Your task to perform on an android device: turn pop-ups off in chrome Image 0: 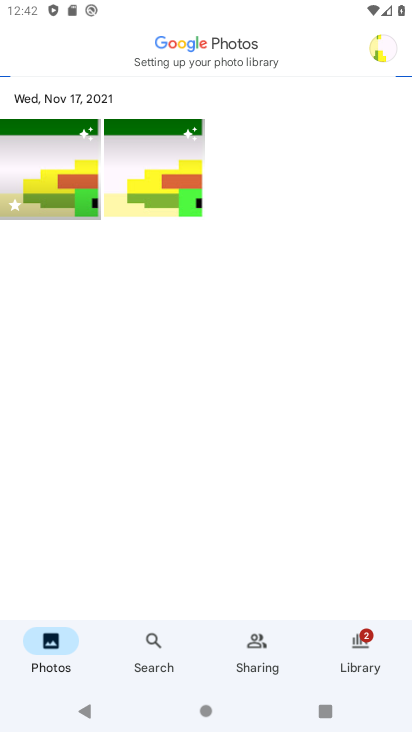
Step 0: press home button
Your task to perform on an android device: turn pop-ups off in chrome Image 1: 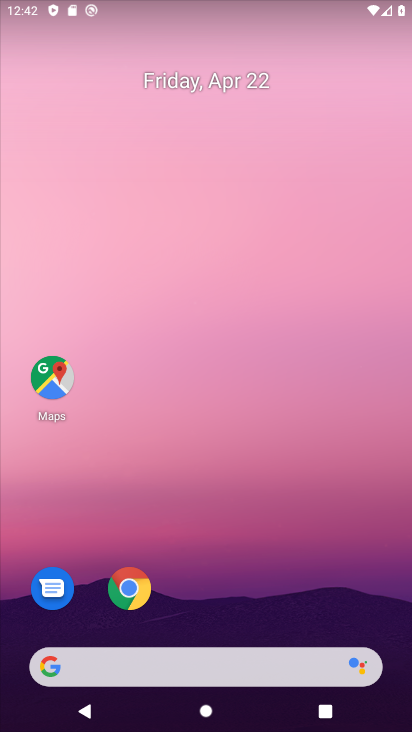
Step 1: drag from (253, 639) to (251, 155)
Your task to perform on an android device: turn pop-ups off in chrome Image 2: 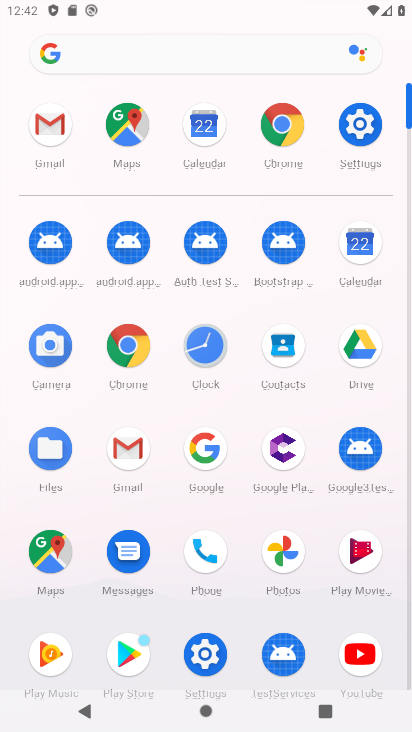
Step 2: click (287, 137)
Your task to perform on an android device: turn pop-ups off in chrome Image 3: 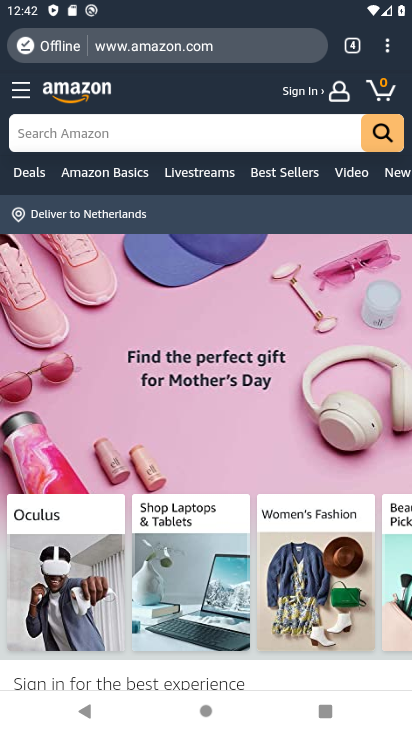
Step 3: click (284, 133)
Your task to perform on an android device: turn pop-ups off in chrome Image 4: 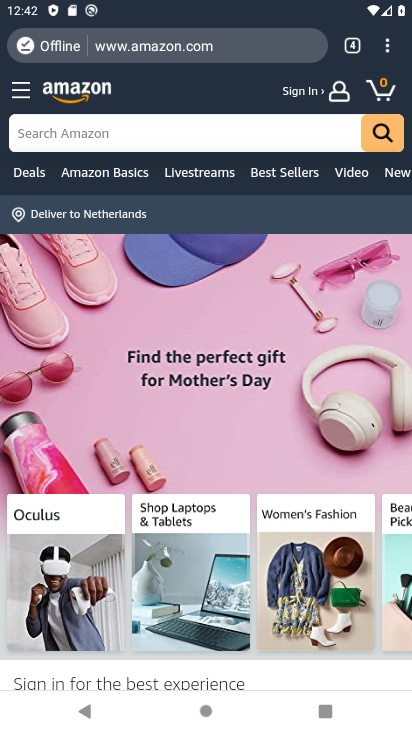
Step 4: click (384, 59)
Your task to perform on an android device: turn pop-ups off in chrome Image 5: 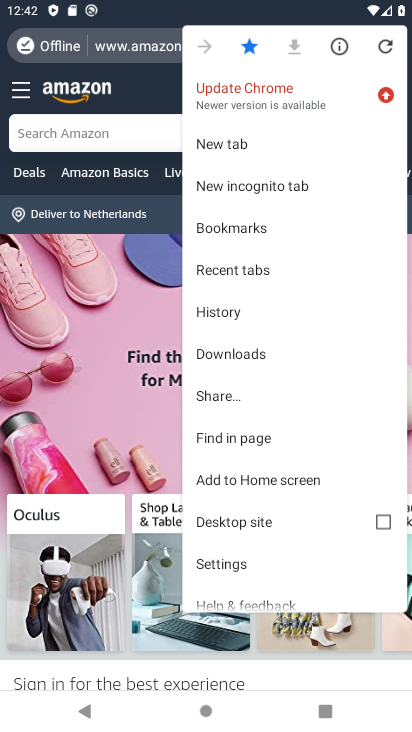
Step 5: click (233, 557)
Your task to perform on an android device: turn pop-ups off in chrome Image 6: 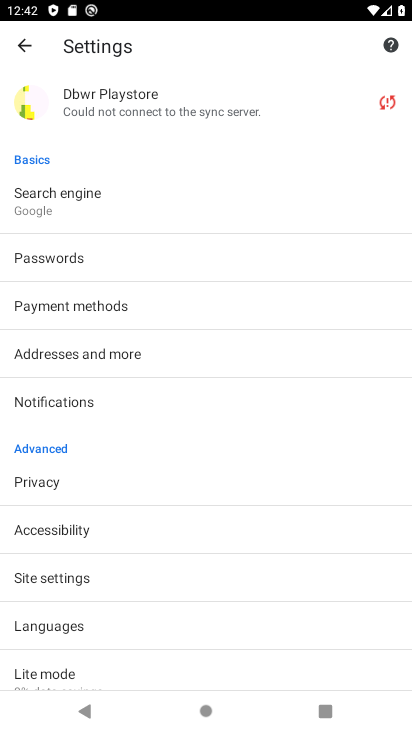
Step 6: click (86, 575)
Your task to perform on an android device: turn pop-ups off in chrome Image 7: 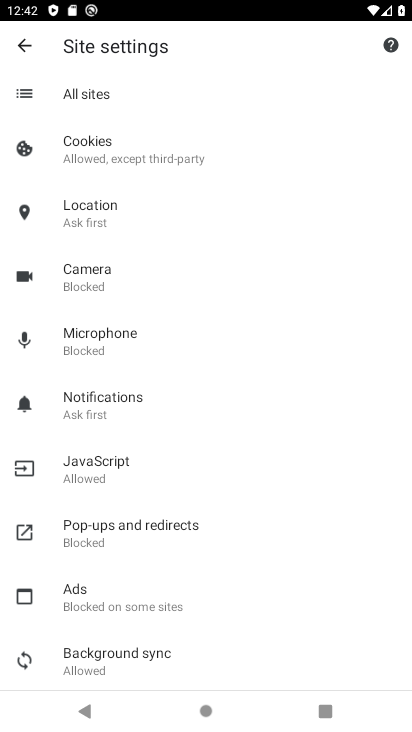
Step 7: click (104, 539)
Your task to perform on an android device: turn pop-ups off in chrome Image 8: 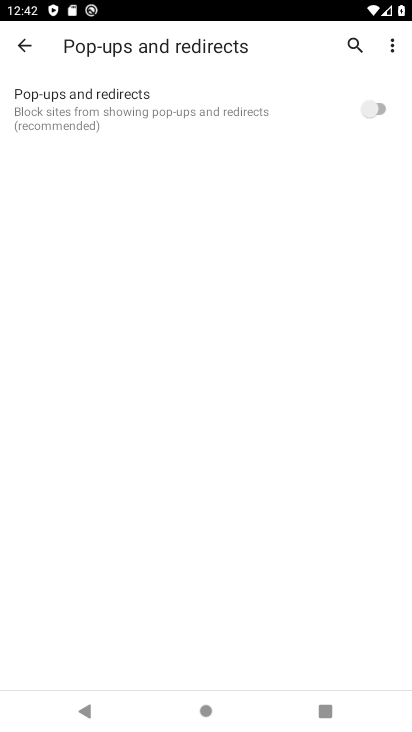
Step 8: click (294, 92)
Your task to perform on an android device: turn pop-ups off in chrome Image 9: 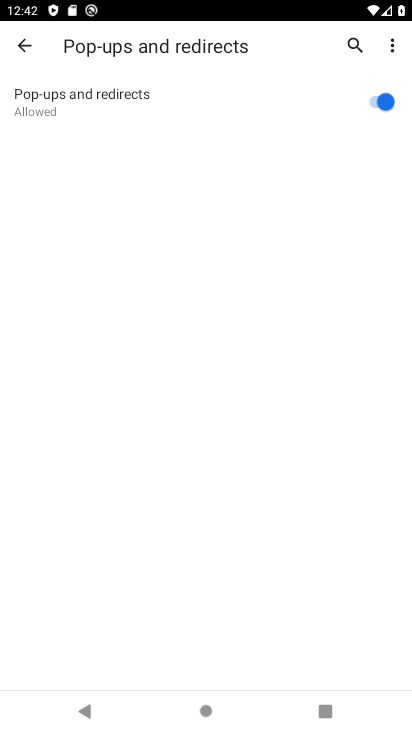
Step 9: click (296, 108)
Your task to perform on an android device: turn pop-ups off in chrome Image 10: 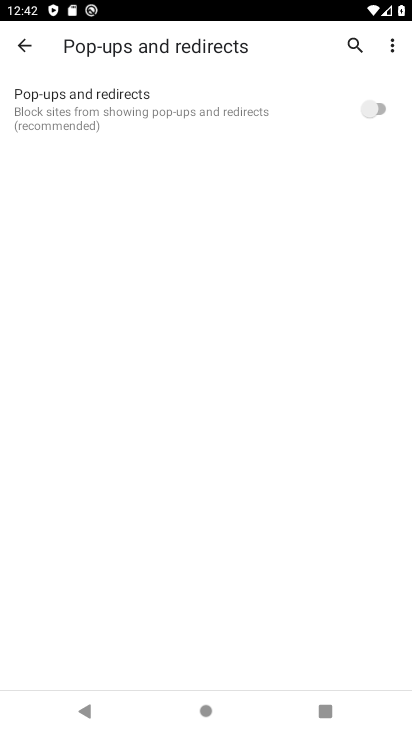
Step 10: task complete